Your task to perform on an android device: turn on the 24-hour format for clock Image 0: 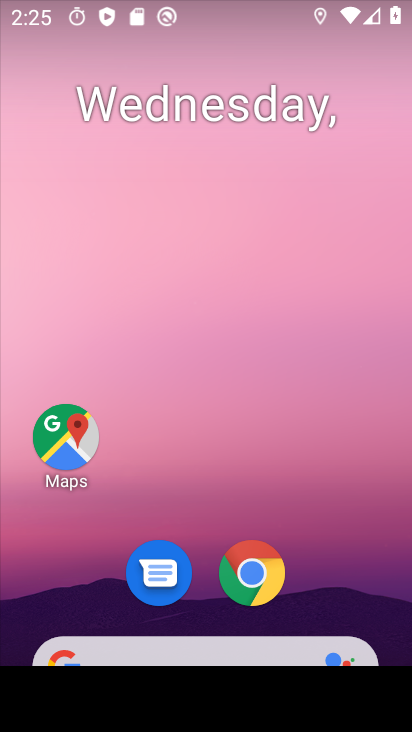
Step 0: drag from (203, 608) to (243, 197)
Your task to perform on an android device: turn on the 24-hour format for clock Image 1: 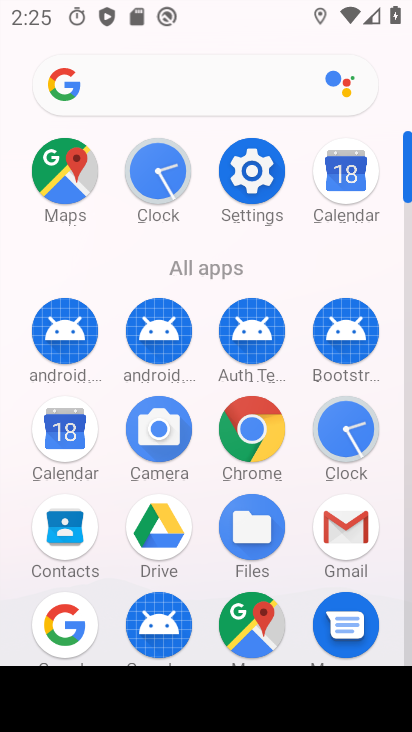
Step 1: click (348, 428)
Your task to perform on an android device: turn on the 24-hour format for clock Image 2: 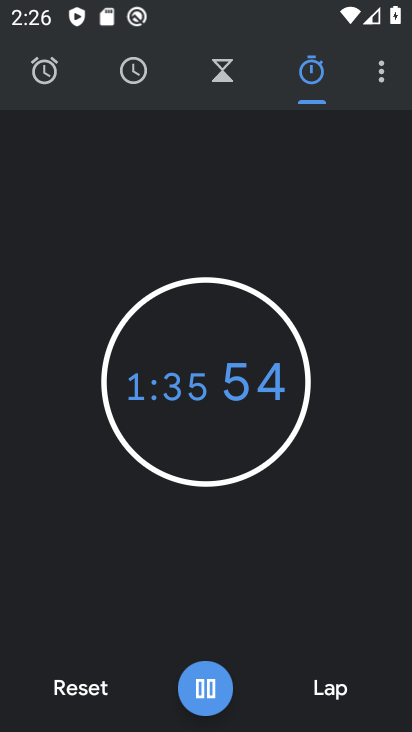
Step 2: click (375, 73)
Your task to perform on an android device: turn on the 24-hour format for clock Image 3: 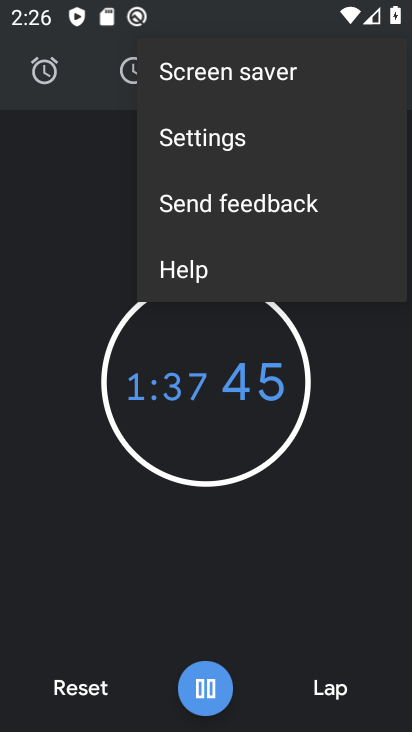
Step 3: click (260, 132)
Your task to perform on an android device: turn on the 24-hour format for clock Image 4: 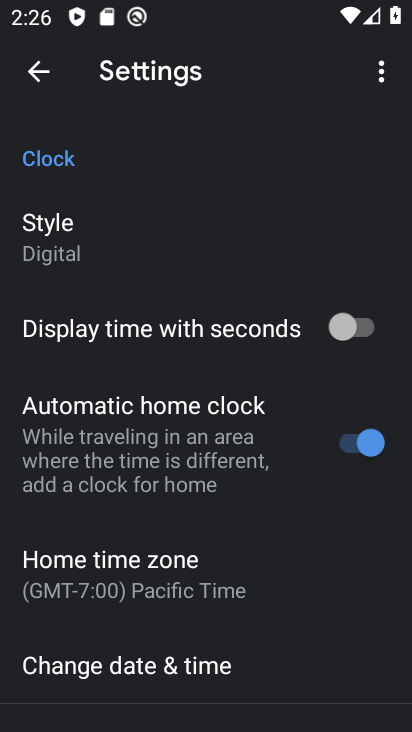
Step 4: drag from (162, 596) to (185, 394)
Your task to perform on an android device: turn on the 24-hour format for clock Image 5: 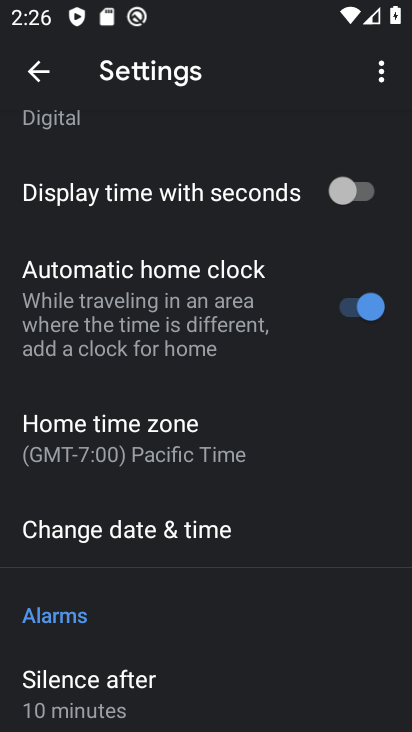
Step 5: click (141, 514)
Your task to perform on an android device: turn on the 24-hour format for clock Image 6: 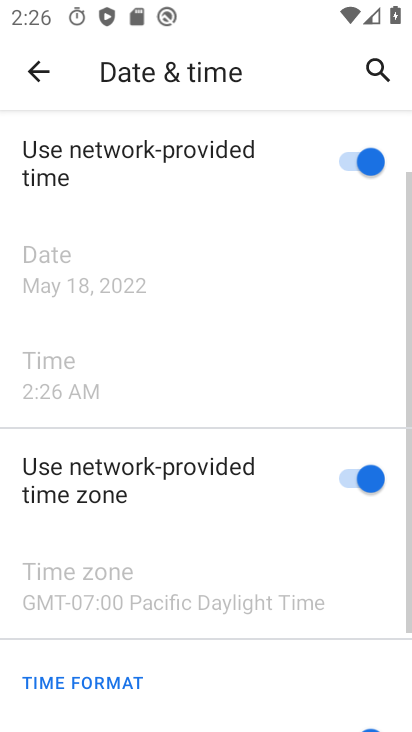
Step 6: drag from (157, 597) to (219, 303)
Your task to perform on an android device: turn on the 24-hour format for clock Image 7: 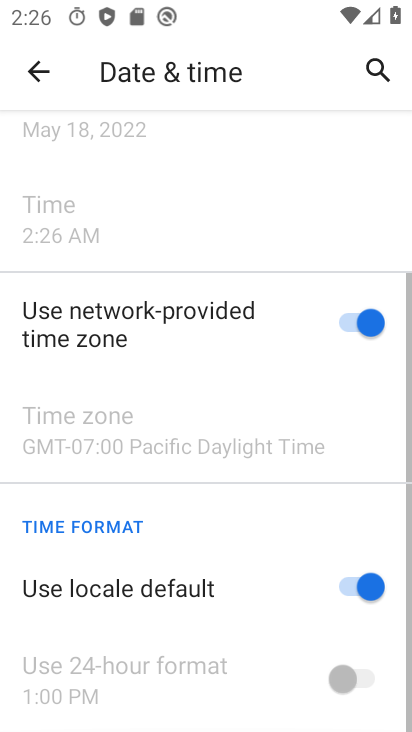
Step 7: drag from (140, 588) to (208, 363)
Your task to perform on an android device: turn on the 24-hour format for clock Image 8: 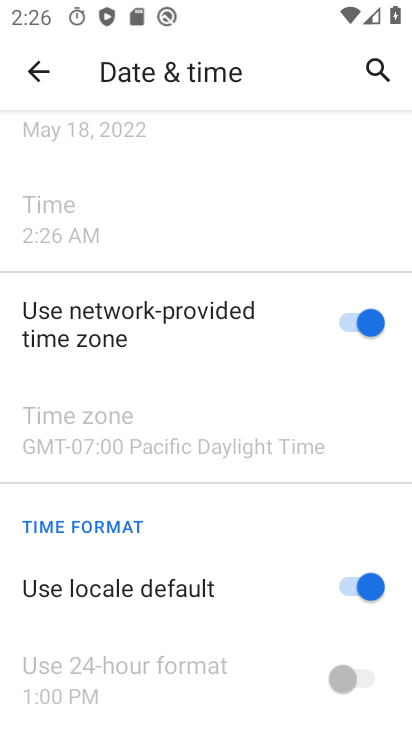
Step 8: click (342, 579)
Your task to perform on an android device: turn on the 24-hour format for clock Image 9: 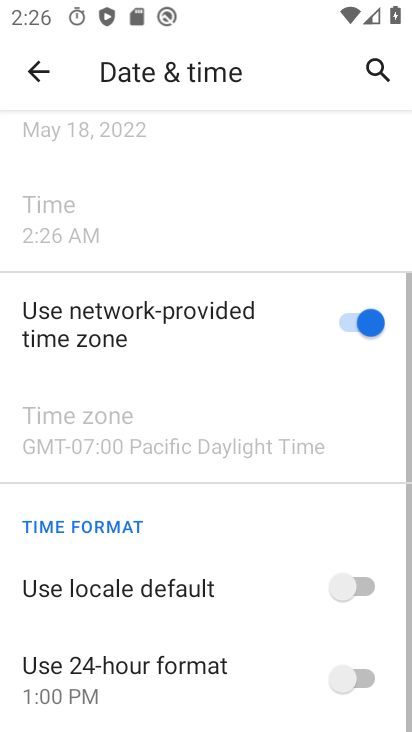
Step 9: click (357, 680)
Your task to perform on an android device: turn on the 24-hour format for clock Image 10: 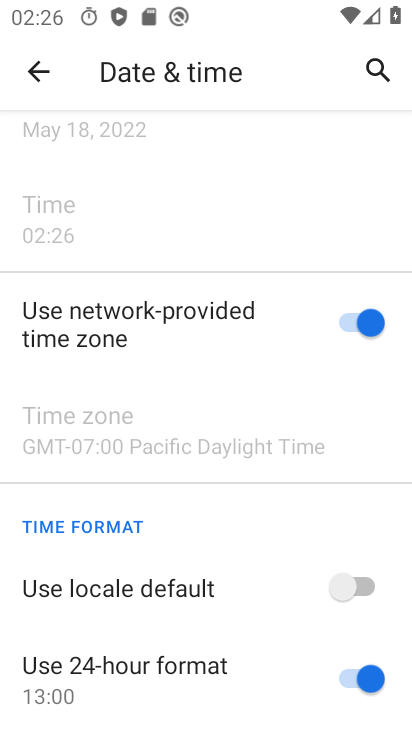
Step 10: task complete